Your task to perform on an android device: turn notification dots off Image 0: 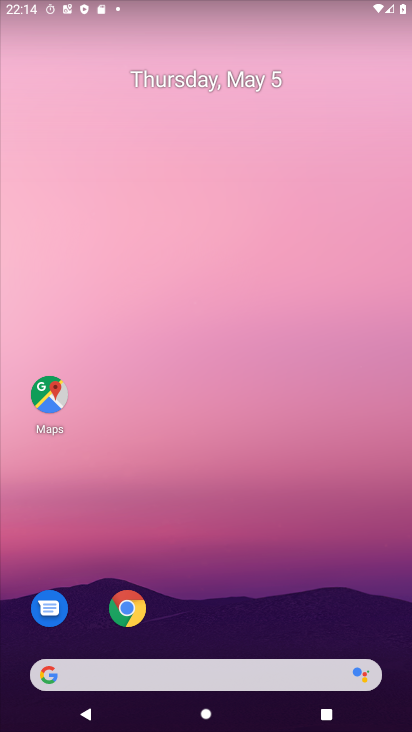
Step 0: drag from (274, 662) to (207, 56)
Your task to perform on an android device: turn notification dots off Image 1: 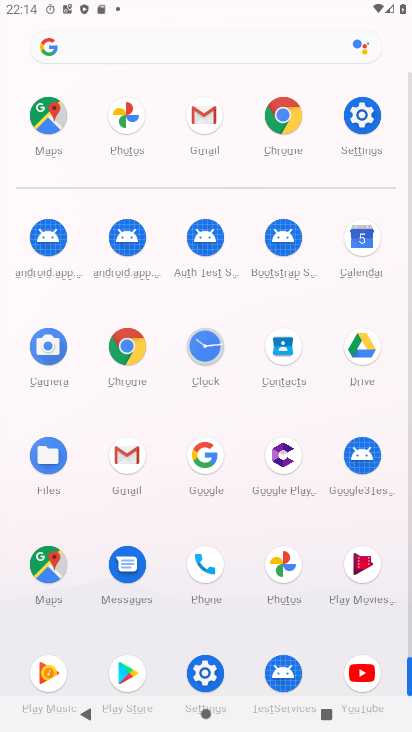
Step 1: click (200, 670)
Your task to perform on an android device: turn notification dots off Image 2: 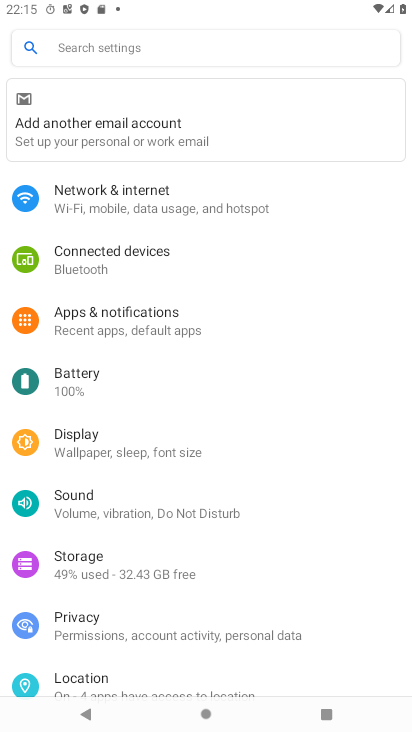
Step 2: click (92, 301)
Your task to perform on an android device: turn notification dots off Image 3: 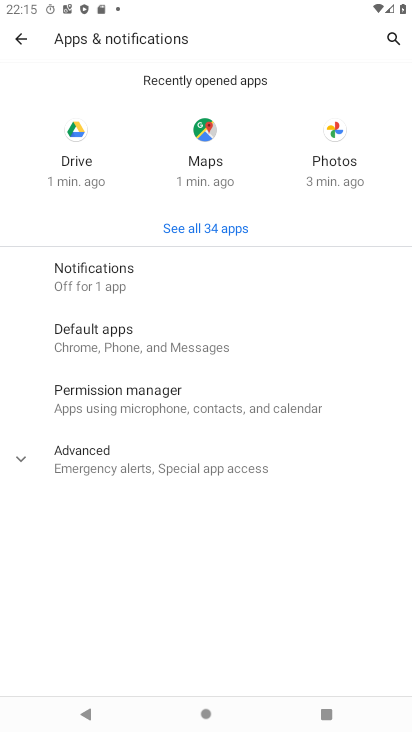
Step 3: click (122, 273)
Your task to perform on an android device: turn notification dots off Image 4: 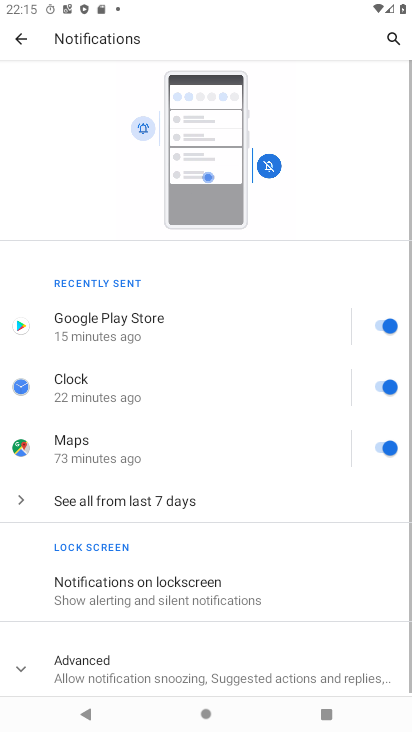
Step 4: drag from (265, 591) to (259, 261)
Your task to perform on an android device: turn notification dots off Image 5: 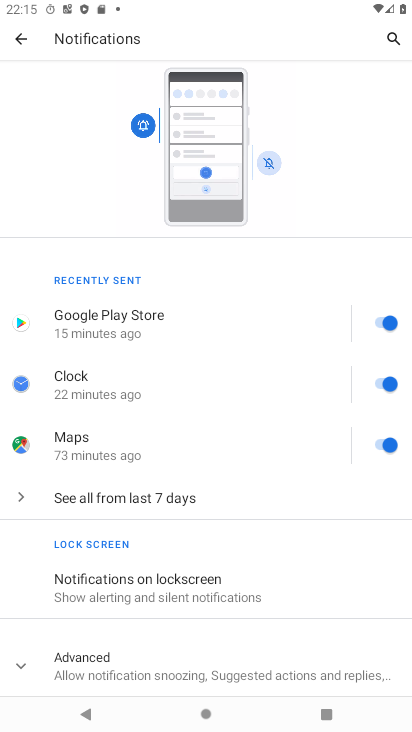
Step 5: click (176, 668)
Your task to perform on an android device: turn notification dots off Image 6: 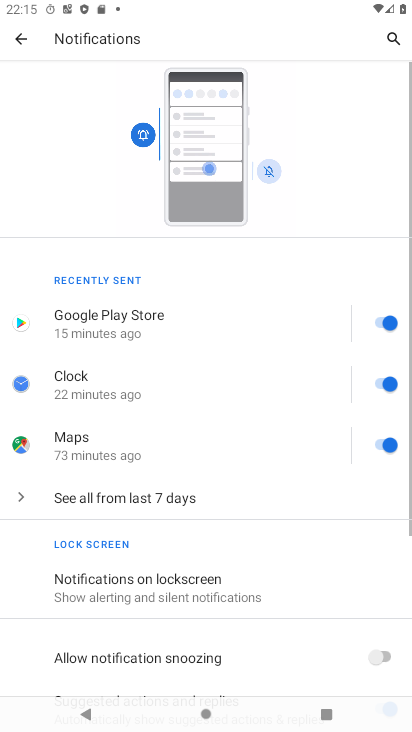
Step 6: task complete